Your task to perform on an android device: choose inbox layout in the gmail app Image 0: 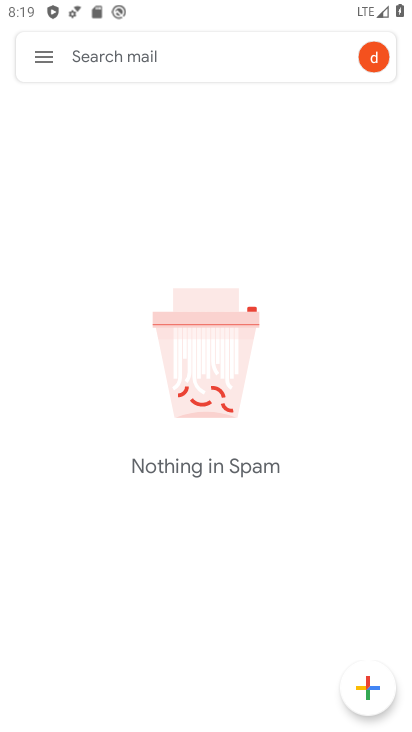
Step 0: click (44, 51)
Your task to perform on an android device: choose inbox layout in the gmail app Image 1: 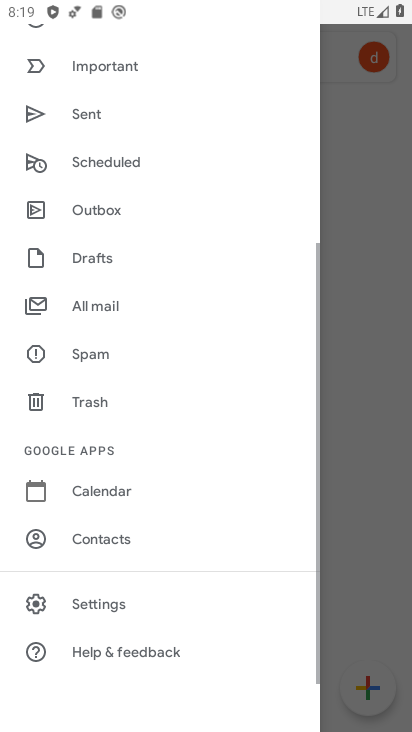
Step 1: drag from (133, 598) to (103, 634)
Your task to perform on an android device: choose inbox layout in the gmail app Image 2: 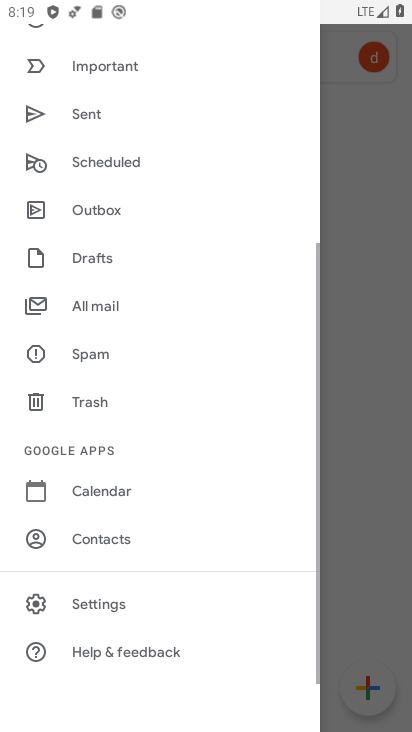
Step 2: click (99, 601)
Your task to perform on an android device: choose inbox layout in the gmail app Image 3: 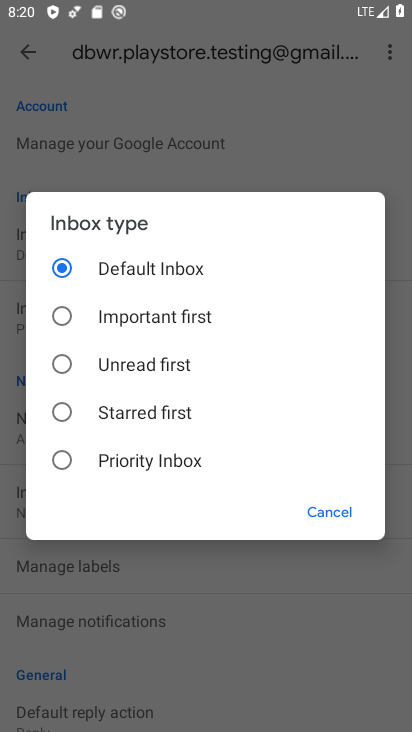
Step 3: task complete